Your task to perform on an android device: change keyboard looks Image 0: 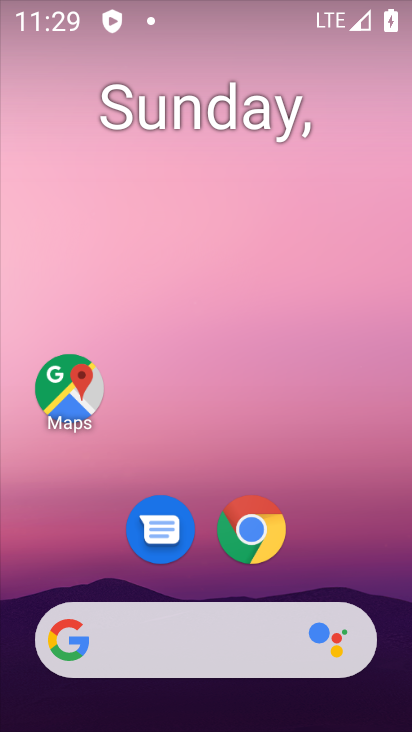
Step 0: drag from (341, 528) to (276, 97)
Your task to perform on an android device: change keyboard looks Image 1: 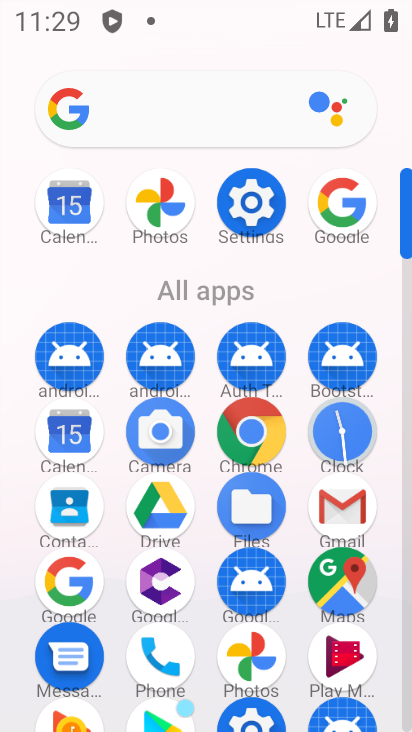
Step 1: click (250, 202)
Your task to perform on an android device: change keyboard looks Image 2: 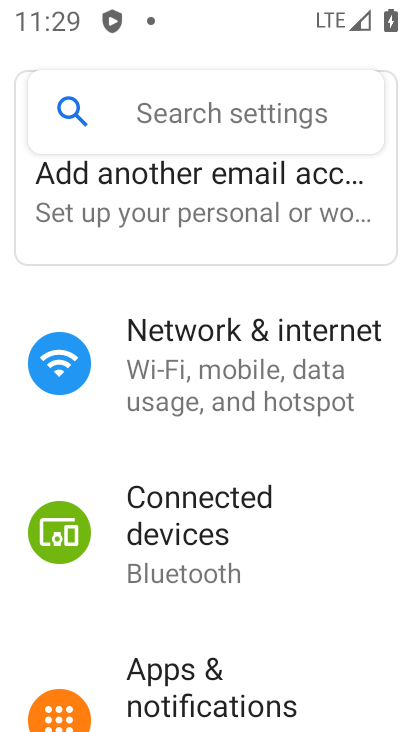
Step 2: drag from (231, 628) to (279, 418)
Your task to perform on an android device: change keyboard looks Image 3: 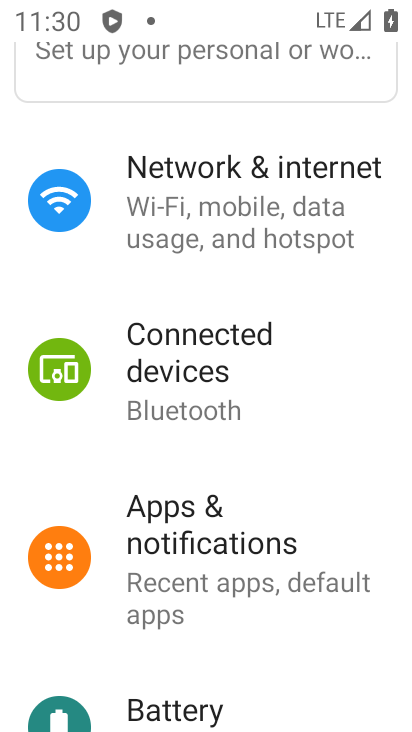
Step 3: drag from (164, 664) to (279, 450)
Your task to perform on an android device: change keyboard looks Image 4: 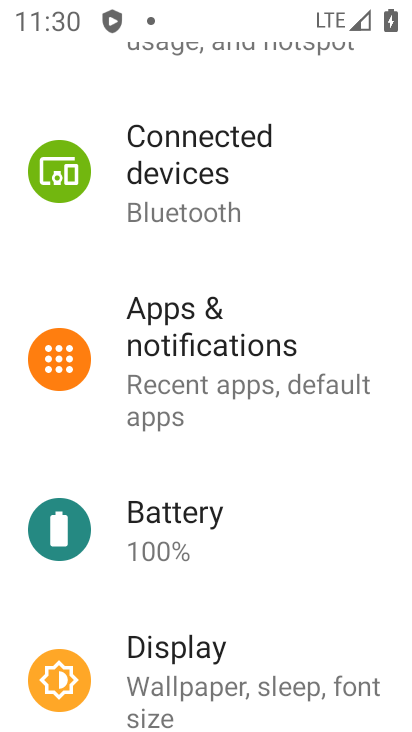
Step 4: drag from (194, 586) to (253, 406)
Your task to perform on an android device: change keyboard looks Image 5: 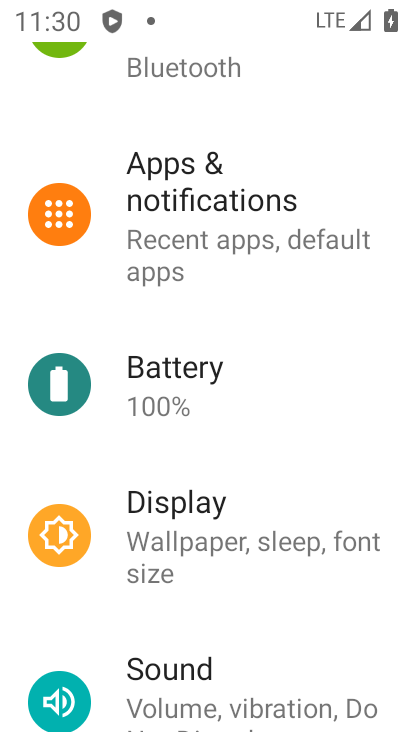
Step 5: drag from (148, 622) to (269, 404)
Your task to perform on an android device: change keyboard looks Image 6: 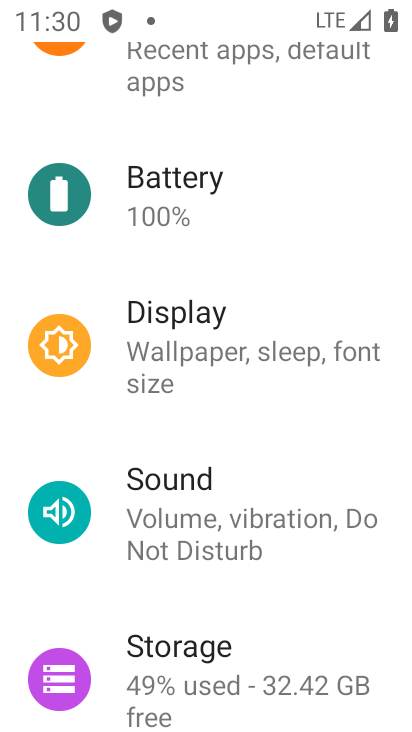
Step 6: drag from (166, 596) to (302, 360)
Your task to perform on an android device: change keyboard looks Image 7: 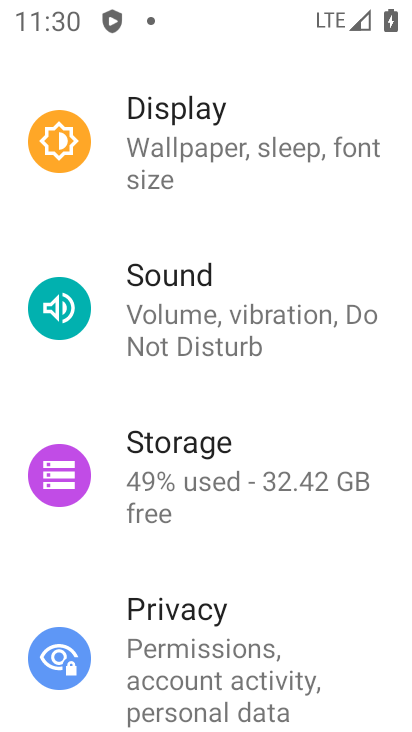
Step 7: drag from (170, 566) to (288, 429)
Your task to perform on an android device: change keyboard looks Image 8: 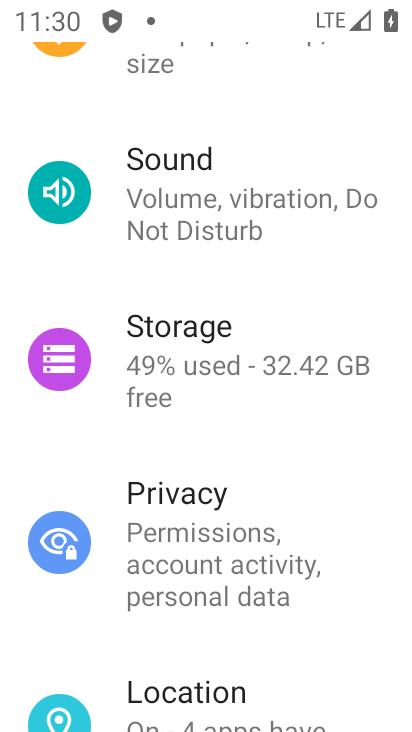
Step 8: drag from (160, 645) to (280, 448)
Your task to perform on an android device: change keyboard looks Image 9: 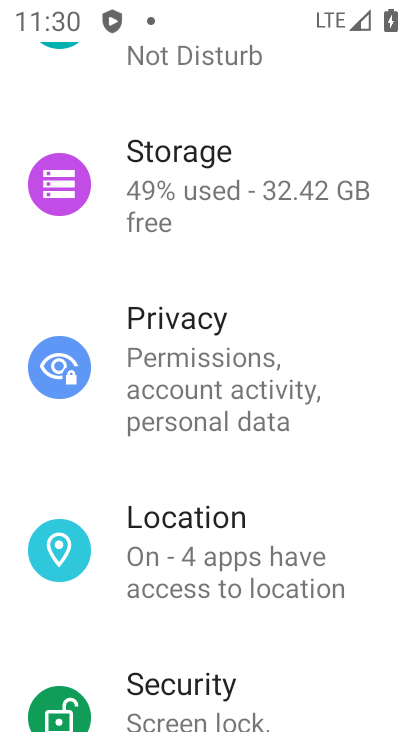
Step 9: drag from (144, 639) to (277, 407)
Your task to perform on an android device: change keyboard looks Image 10: 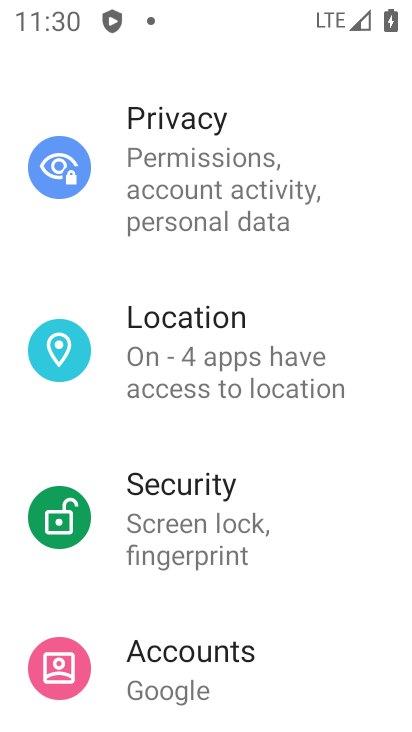
Step 10: drag from (111, 617) to (245, 375)
Your task to perform on an android device: change keyboard looks Image 11: 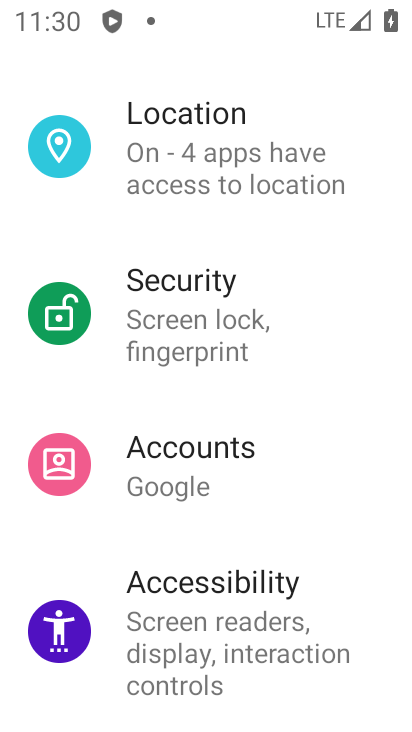
Step 11: drag from (132, 541) to (274, 380)
Your task to perform on an android device: change keyboard looks Image 12: 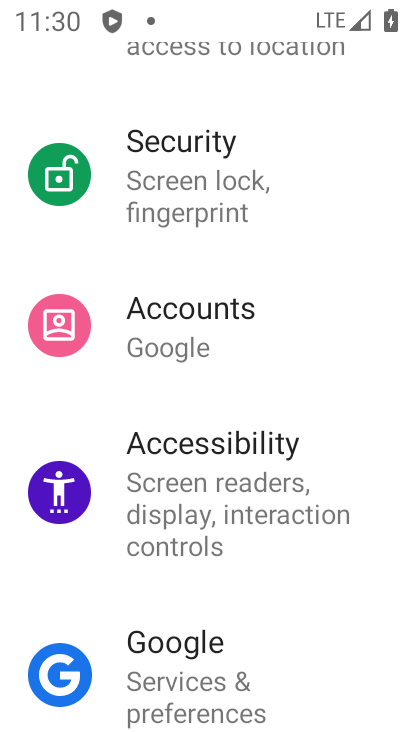
Step 12: drag from (99, 588) to (242, 340)
Your task to perform on an android device: change keyboard looks Image 13: 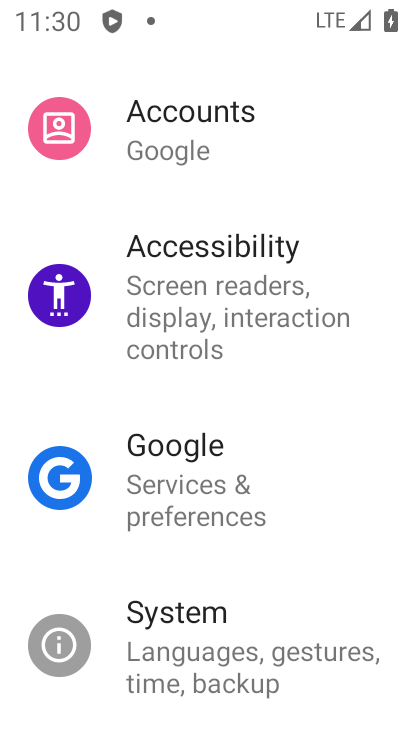
Step 13: drag from (115, 562) to (238, 400)
Your task to perform on an android device: change keyboard looks Image 14: 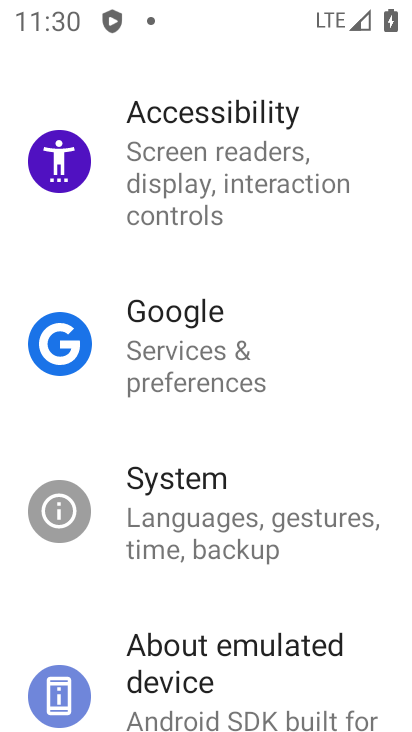
Step 14: click (175, 499)
Your task to perform on an android device: change keyboard looks Image 15: 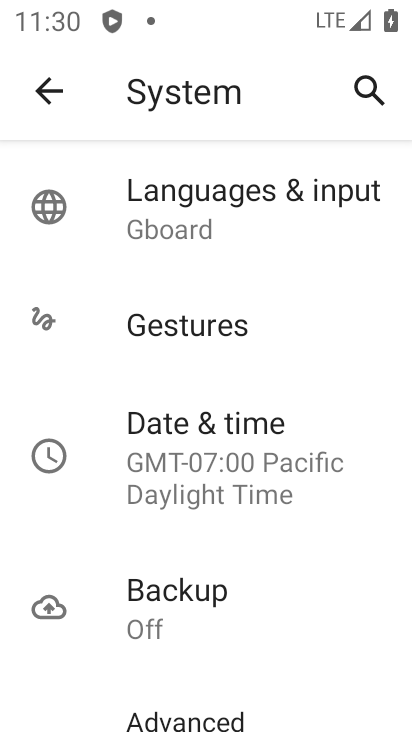
Step 15: click (238, 192)
Your task to perform on an android device: change keyboard looks Image 16: 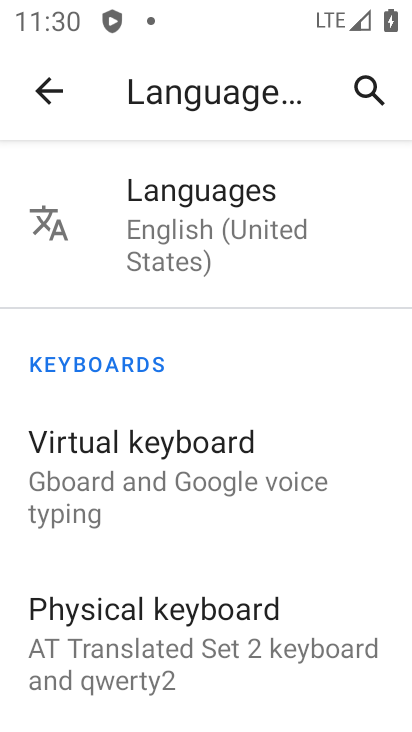
Step 16: click (176, 441)
Your task to perform on an android device: change keyboard looks Image 17: 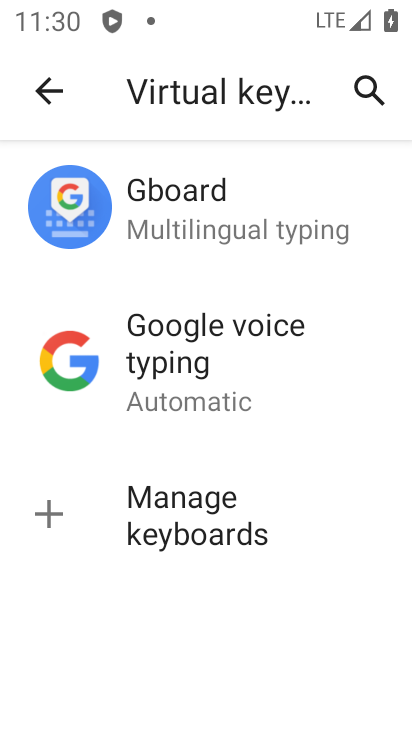
Step 17: click (179, 195)
Your task to perform on an android device: change keyboard looks Image 18: 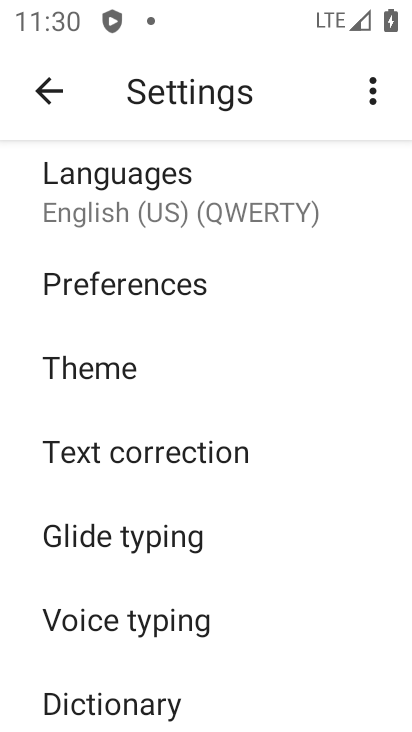
Step 18: click (118, 360)
Your task to perform on an android device: change keyboard looks Image 19: 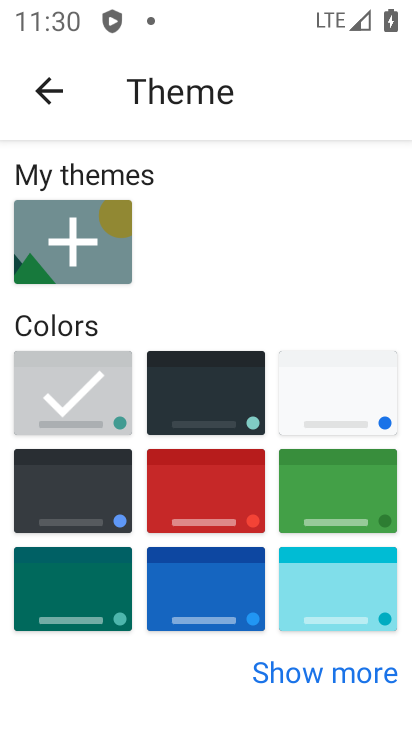
Step 19: click (112, 503)
Your task to perform on an android device: change keyboard looks Image 20: 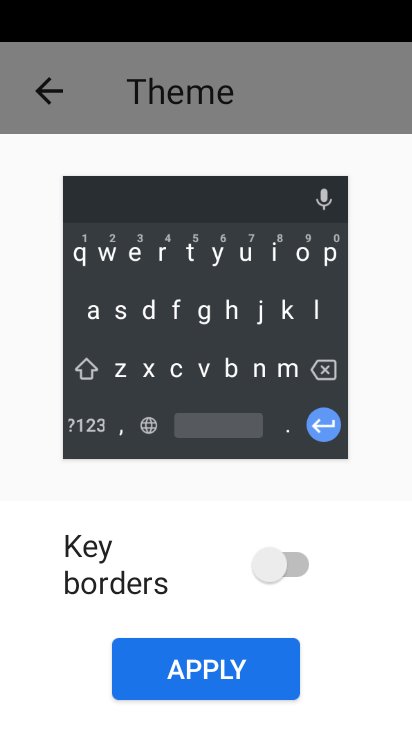
Step 20: click (268, 571)
Your task to perform on an android device: change keyboard looks Image 21: 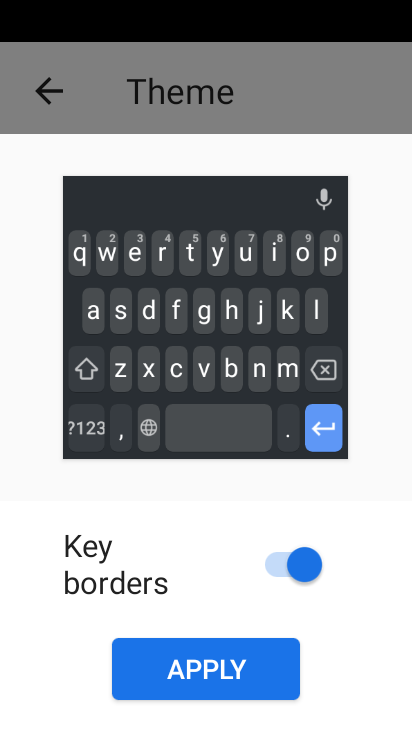
Step 21: click (201, 681)
Your task to perform on an android device: change keyboard looks Image 22: 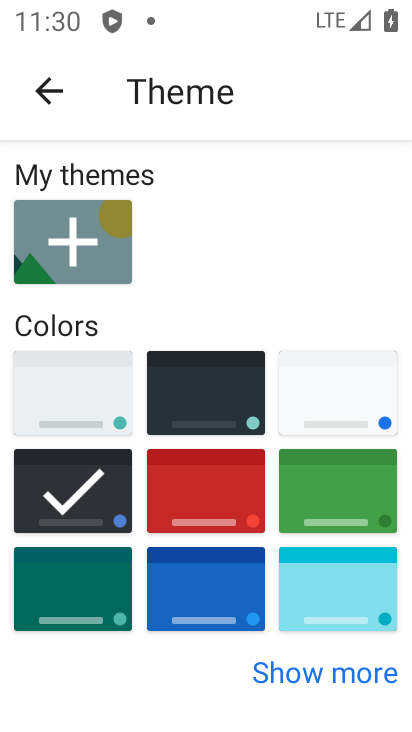
Step 22: task complete